Your task to perform on an android device: read, delete, or share a saved page in the chrome app Image 0: 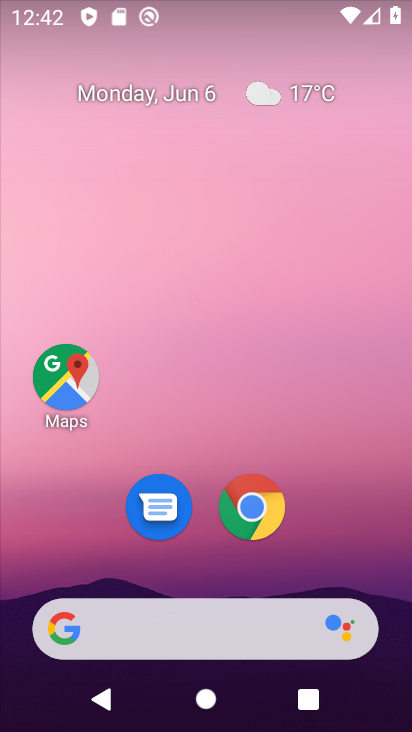
Step 0: click (254, 508)
Your task to perform on an android device: read, delete, or share a saved page in the chrome app Image 1: 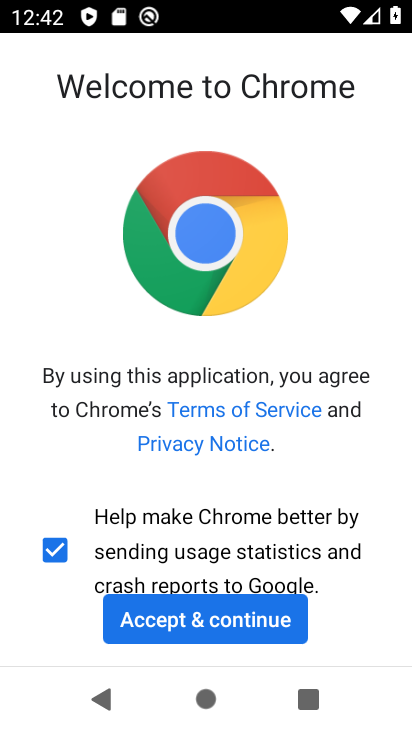
Step 1: click (187, 617)
Your task to perform on an android device: read, delete, or share a saved page in the chrome app Image 2: 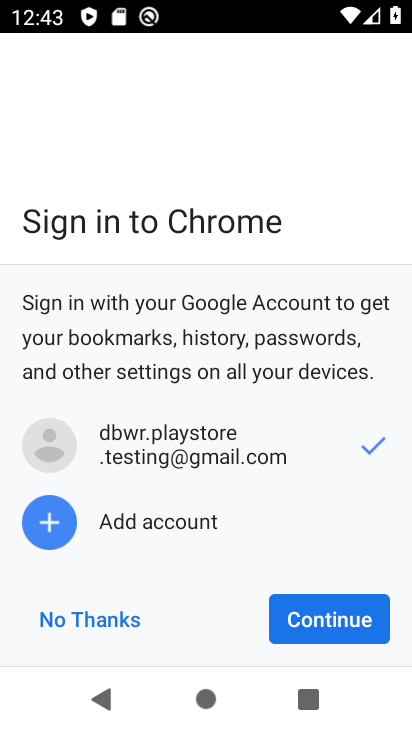
Step 2: click (310, 624)
Your task to perform on an android device: read, delete, or share a saved page in the chrome app Image 3: 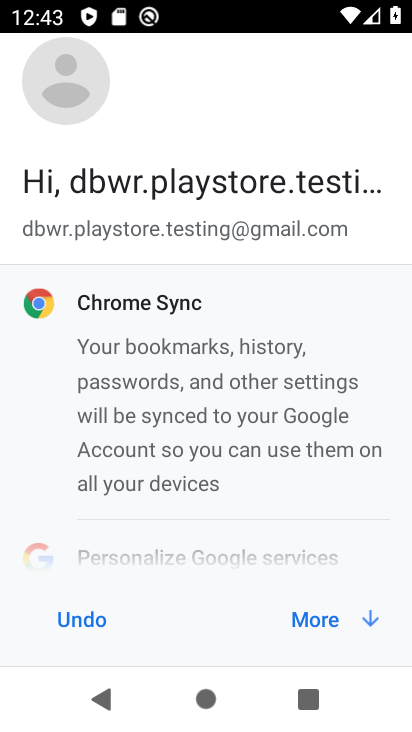
Step 3: click (310, 624)
Your task to perform on an android device: read, delete, or share a saved page in the chrome app Image 4: 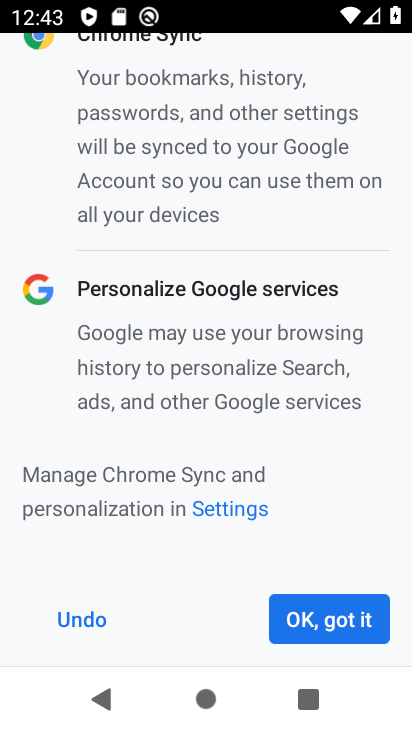
Step 4: click (285, 622)
Your task to perform on an android device: read, delete, or share a saved page in the chrome app Image 5: 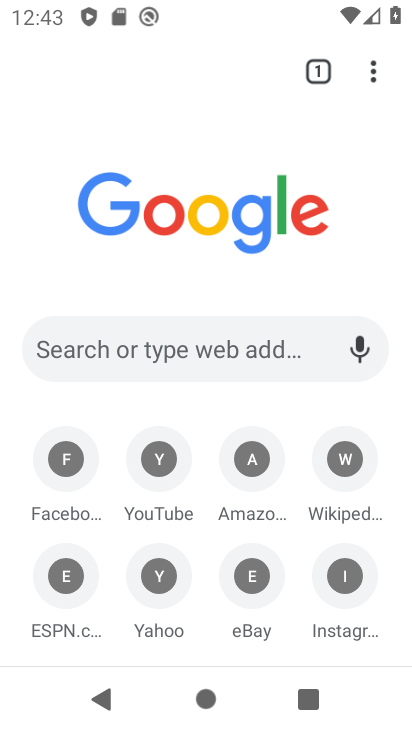
Step 5: click (410, 80)
Your task to perform on an android device: read, delete, or share a saved page in the chrome app Image 6: 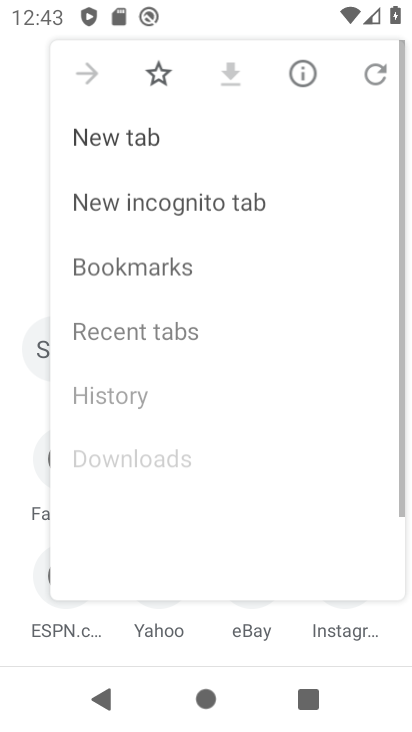
Step 6: click (372, 75)
Your task to perform on an android device: read, delete, or share a saved page in the chrome app Image 7: 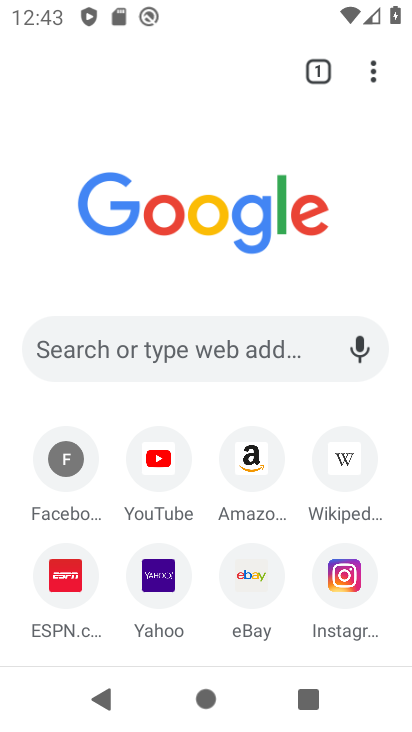
Step 7: click (373, 84)
Your task to perform on an android device: read, delete, or share a saved page in the chrome app Image 8: 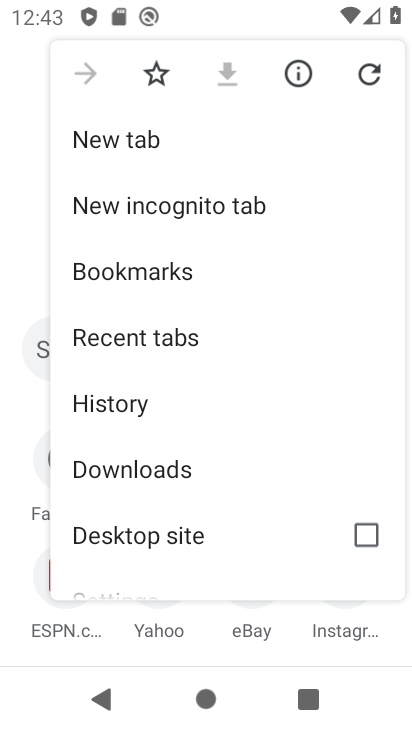
Step 8: click (166, 474)
Your task to perform on an android device: read, delete, or share a saved page in the chrome app Image 9: 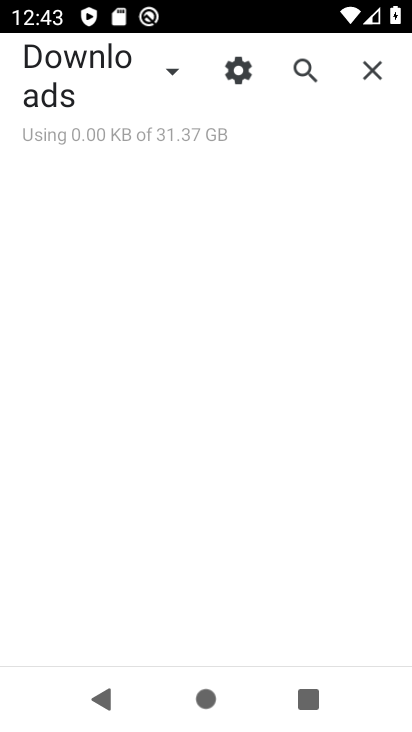
Step 9: task complete